Your task to perform on an android device: open app "YouTube Kids" (install if not already installed) Image 0: 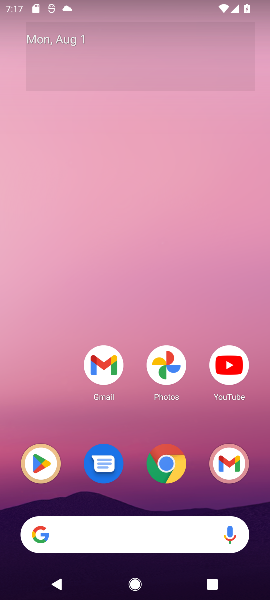
Step 0: click (46, 466)
Your task to perform on an android device: open app "YouTube Kids" (install if not already installed) Image 1: 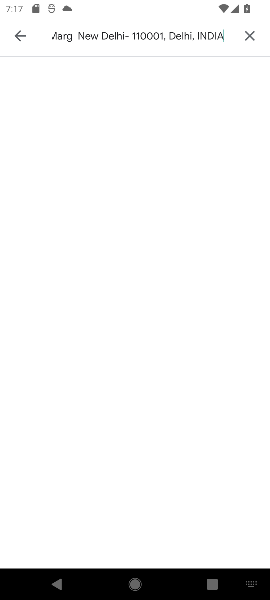
Step 1: click (243, 41)
Your task to perform on an android device: open app "YouTube Kids" (install if not already installed) Image 2: 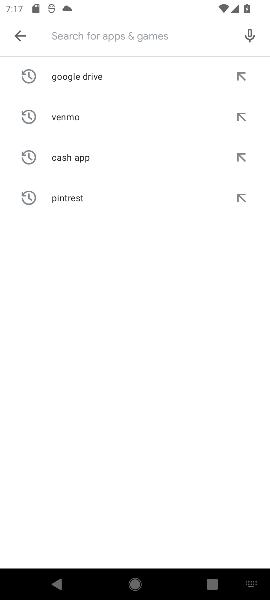
Step 2: type "youtube kid"
Your task to perform on an android device: open app "YouTube Kids" (install if not already installed) Image 3: 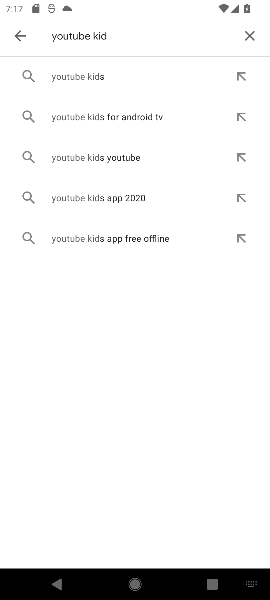
Step 3: click (81, 75)
Your task to perform on an android device: open app "YouTube Kids" (install if not already installed) Image 4: 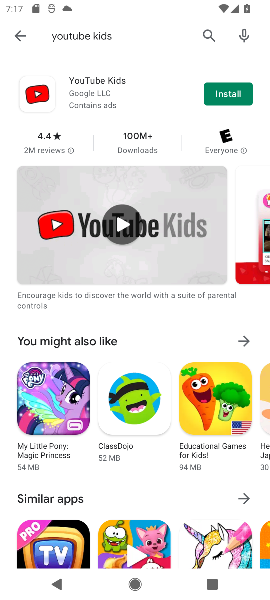
Step 4: click (234, 103)
Your task to perform on an android device: open app "YouTube Kids" (install if not already installed) Image 5: 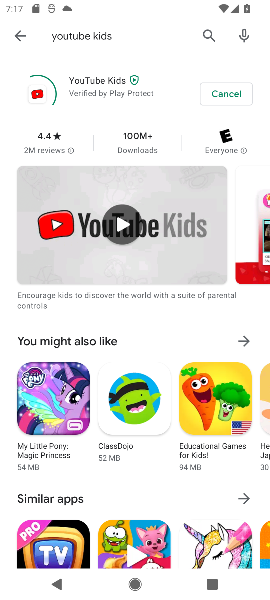
Step 5: task complete